Your task to perform on an android device: Go to privacy settings Image 0: 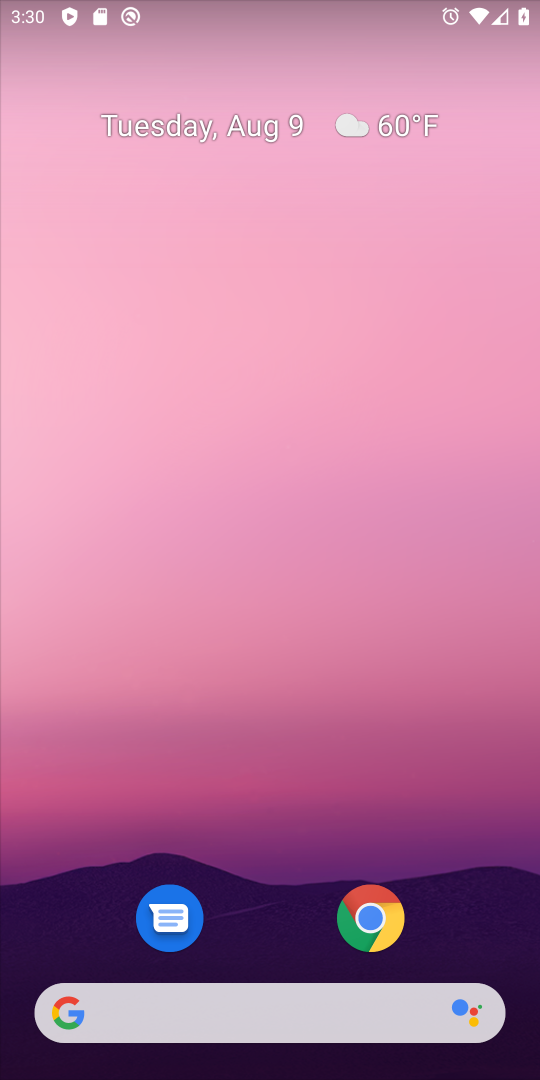
Step 0: drag from (315, 1022) to (447, 19)
Your task to perform on an android device: Go to privacy settings Image 1: 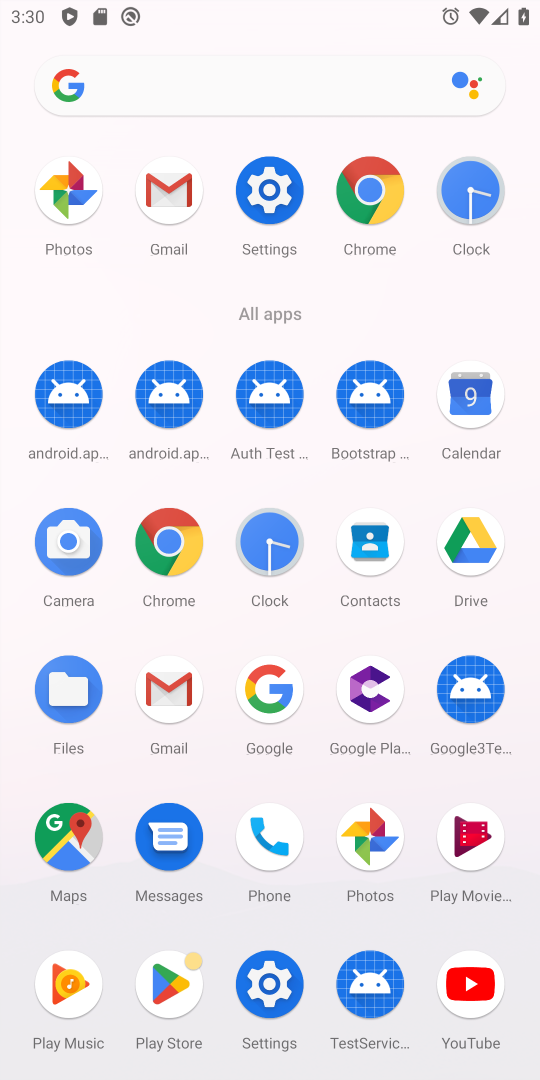
Step 1: click (251, 219)
Your task to perform on an android device: Go to privacy settings Image 2: 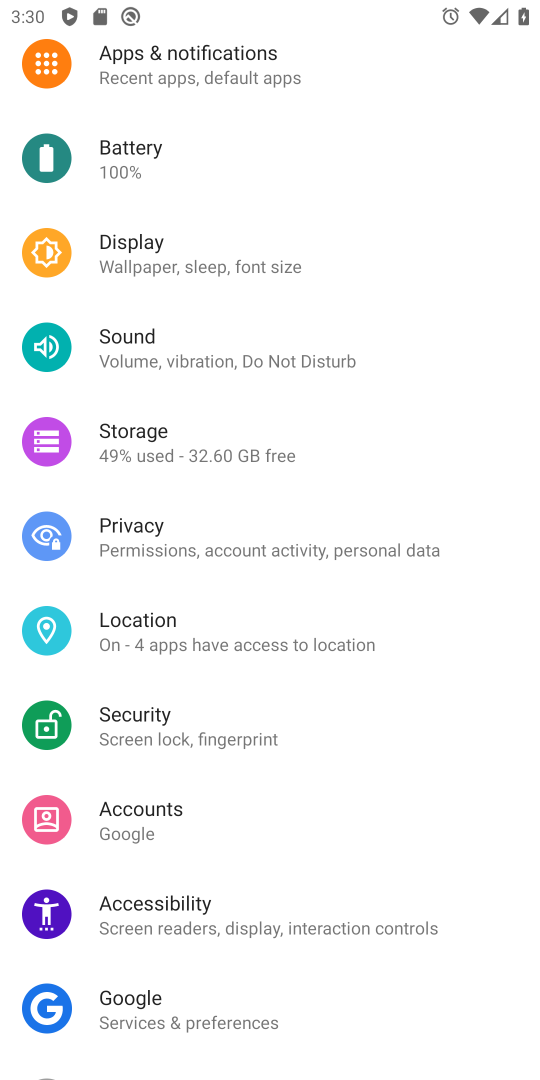
Step 2: click (180, 547)
Your task to perform on an android device: Go to privacy settings Image 3: 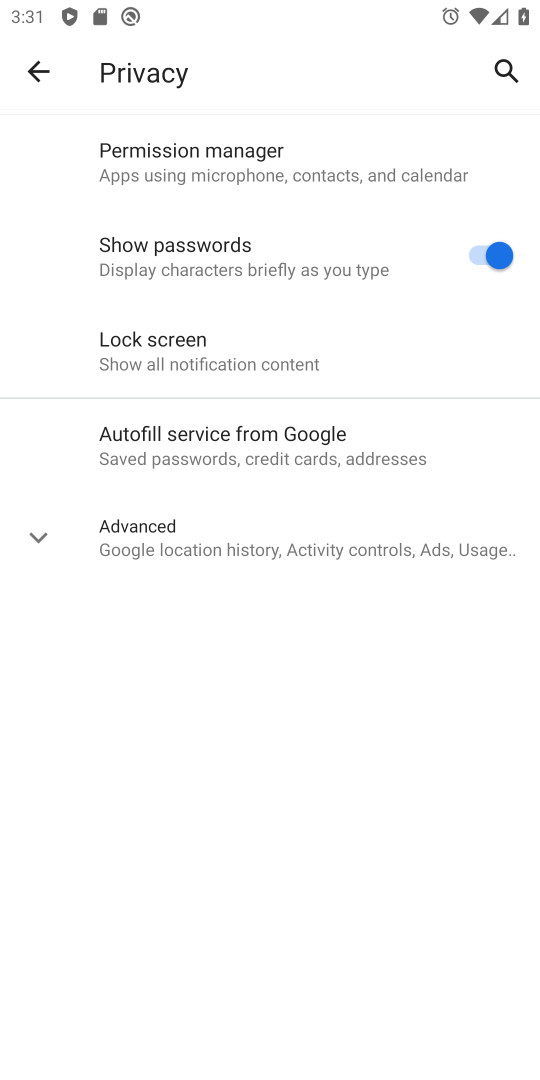
Step 3: task complete